Your task to perform on an android device: Clear the shopping cart on bestbuy.com. Search for usb-c to usb-b on bestbuy.com, select the first entry, and add it to the cart. Image 0: 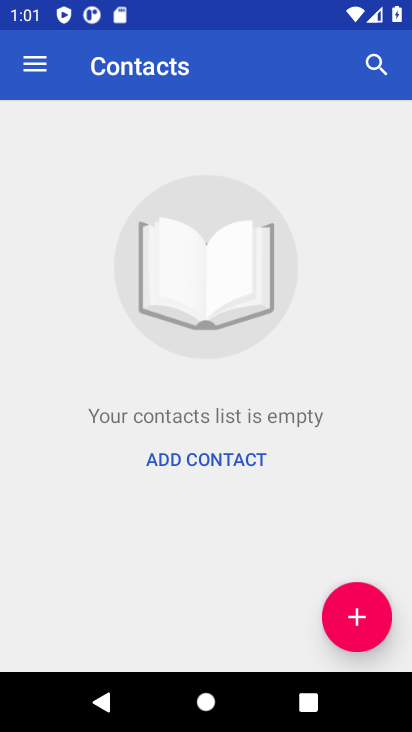
Step 0: press home button
Your task to perform on an android device: Clear the shopping cart on bestbuy.com. Search for usb-c to usb-b on bestbuy.com, select the first entry, and add it to the cart. Image 1: 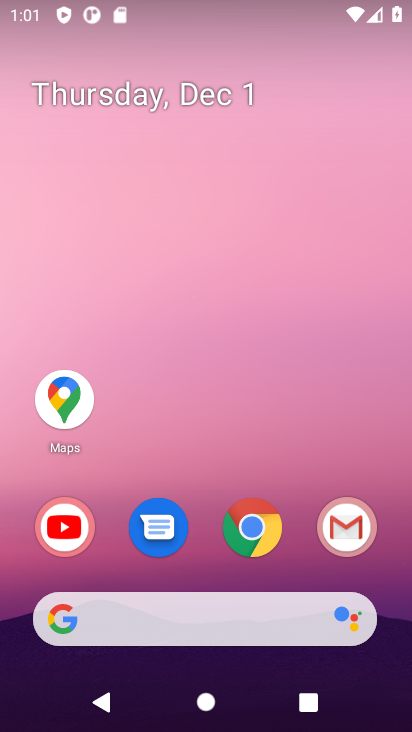
Step 1: click (260, 534)
Your task to perform on an android device: Clear the shopping cart on bestbuy.com. Search for usb-c to usb-b on bestbuy.com, select the first entry, and add it to the cart. Image 2: 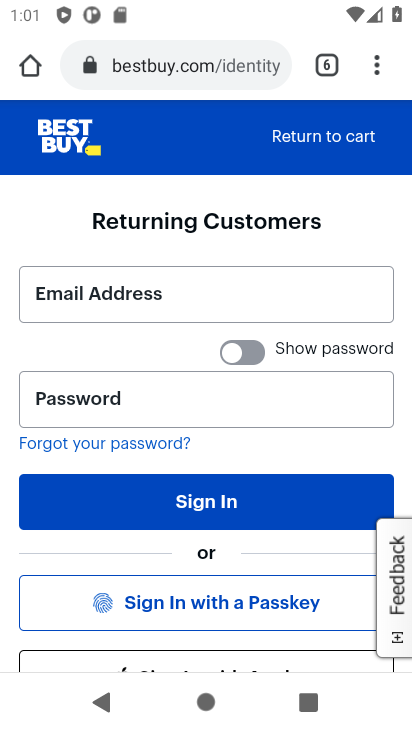
Step 2: click (334, 143)
Your task to perform on an android device: Clear the shopping cart on bestbuy.com. Search for usb-c to usb-b on bestbuy.com, select the first entry, and add it to the cart. Image 3: 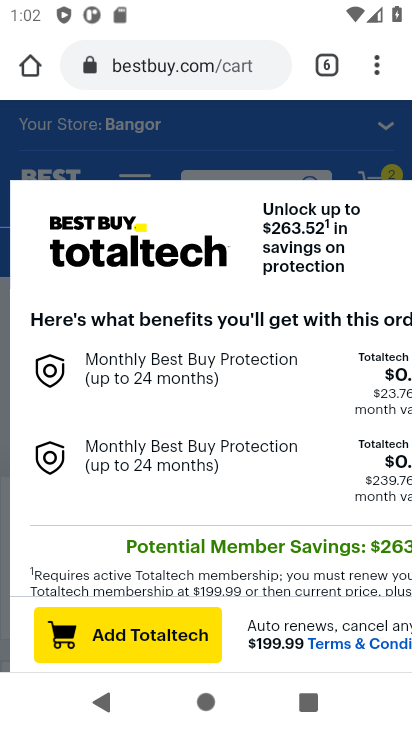
Step 3: click (325, 150)
Your task to perform on an android device: Clear the shopping cart on bestbuy.com. Search for usb-c to usb-b on bestbuy.com, select the first entry, and add it to the cart. Image 4: 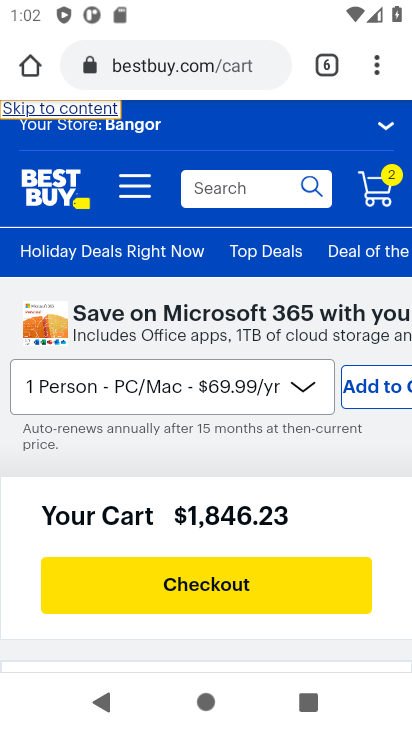
Step 4: drag from (152, 296) to (129, 116)
Your task to perform on an android device: Clear the shopping cart on bestbuy.com. Search for usb-c to usb-b on bestbuy.com, select the first entry, and add it to the cart. Image 5: 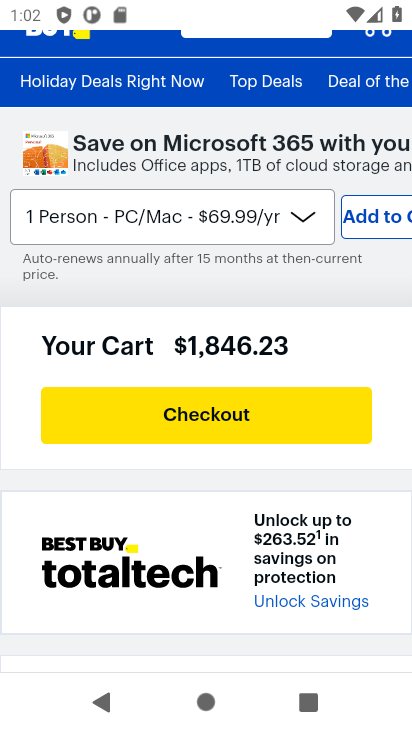
Step 5: drag from (406, 409) to (377, 200)
Your task to perform on an android device: Clear the shopping cart on bestbuy.com. Search for usb-c to usb-b on bestbuy.com, select the first entry, and add it to the cart. Image 6: 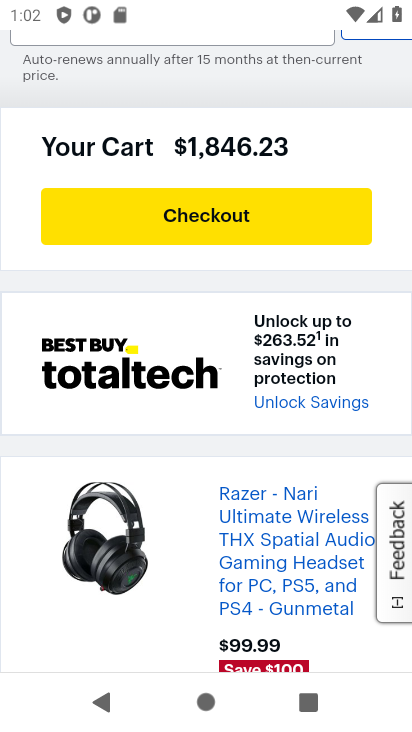
Step 6: drag from (362, 367) to (362, 321)
Your task to perform on an android device: Clear the shopping cart on bestbuy.com. Search for usb-c to usb-b on bestbuy.com, select the first entry, and add it to the cart. Image 7: 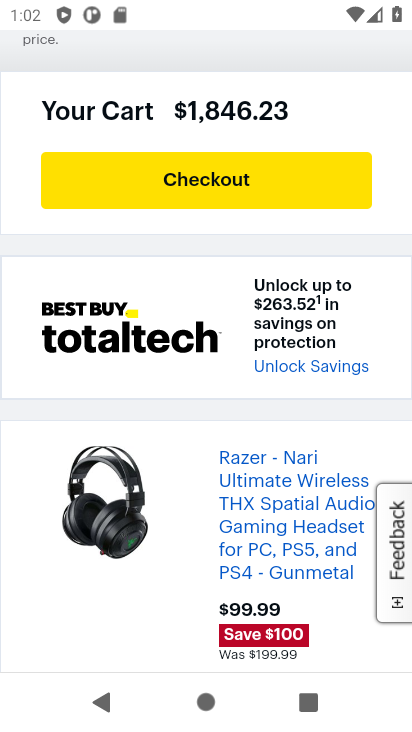
Step 7: drag from (348, 397) to (350, 208)
Your task to perform on an android device: Clear the shopping cart on bestbuy.com. Search for usb-c to usb-b on bestbuy.com, select the first entry, and add it to the cart. Image 8: 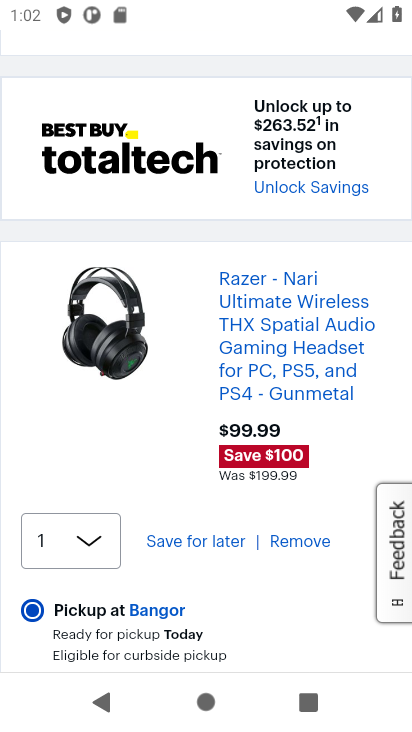
Step 8: click (297, 552)
Your task to perform on an android device: Clear the shopping cart on bestbuy.com. Search for usb-c to usb-b on bestbuy.com, select the first entry, and add it to the cart. Image 9: 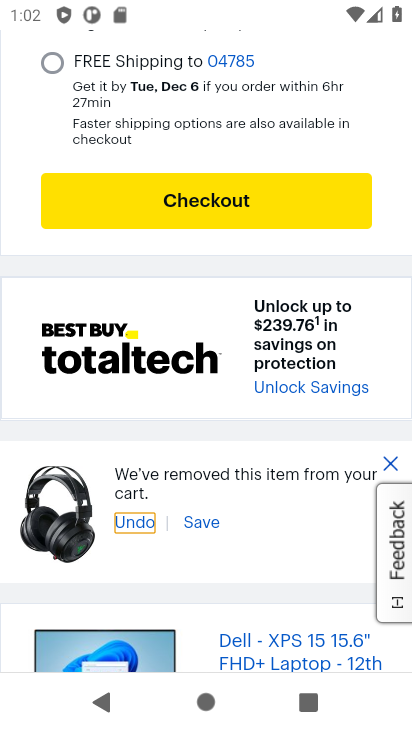
Step 9: drag from (277, 423) to (267, 269)
Your task to perform on an android device: Clear the shopping cart on bestbuy.com. Search for usb-c to usb-b on bestbuy.com, select the first entry, and add it to the cart. Image 10: 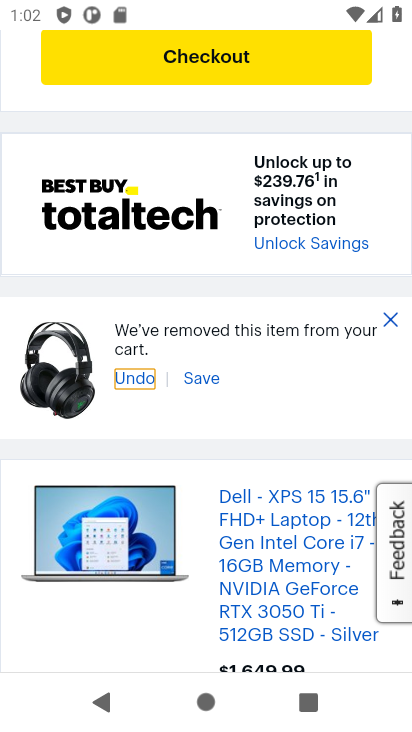
Step 10: drag from (348, 448) to (348, 110)
Your task to perform on an android device: Clear the shopping cart on bestbuy.com. Search for usb-c to usb-b on bestbuy.com, select the first entry, and add it to the cart. Image 11: 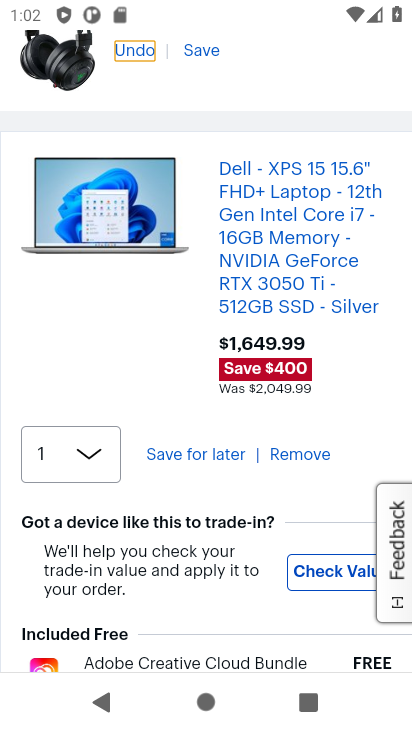
Step 11: click (307, 480)
Your task to perform on an android device: Clear the shopping cart on bestbuy.com. Search for usb-c to usb-b on bestbuy.com, select the first entry, and add it to the cart. Image 12: 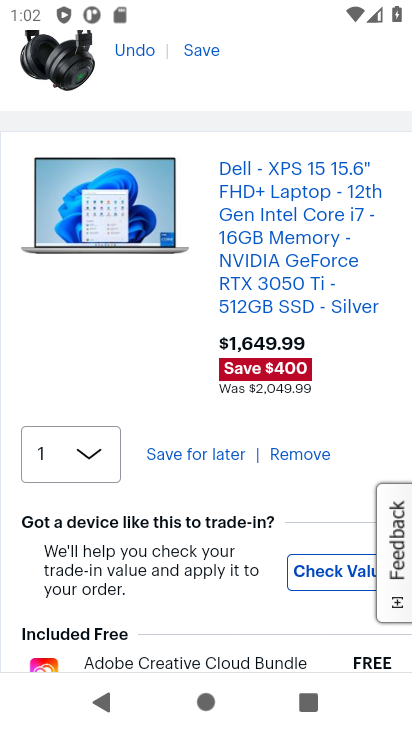
Step 12: click (302, 454)
Your task to perform on an android device: Clear the shopping cart on bestbuy.com. Search for usb-c to usb-b on bestbuy.com, select the first entry, and add it to the cart. Image 13: 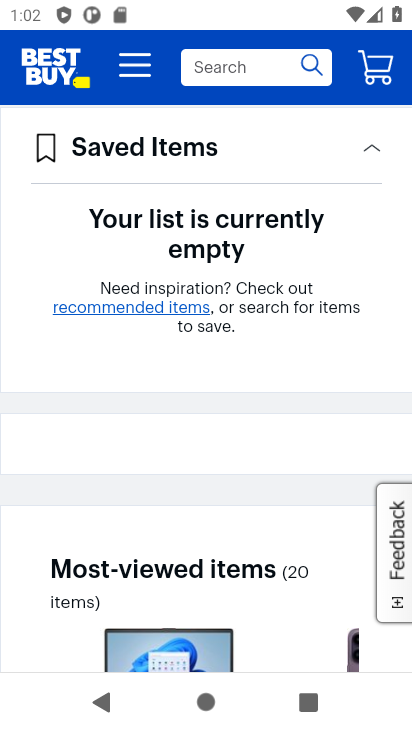
Step 13: click (204, 70)
Your task to perform on an android device: Clear the shopping cart on bestbuy.com. Search for usb-c to usb-b on bestbuy.com, select the first entry, and add it to the cart. Image 14: 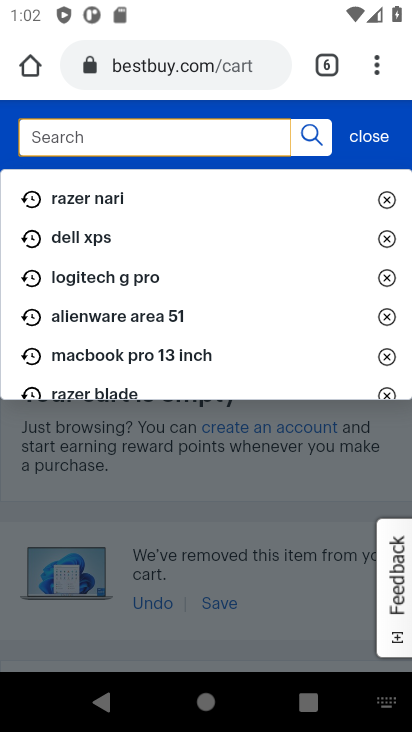
Step 14: type "usb-c to usb-b"
Your task to perform on an android device: Clear the shopping cart on bestbuy.com. Search for usb-c to usb-b on bestbuy.com, select the first entry, and add it to the cart. Image 15: 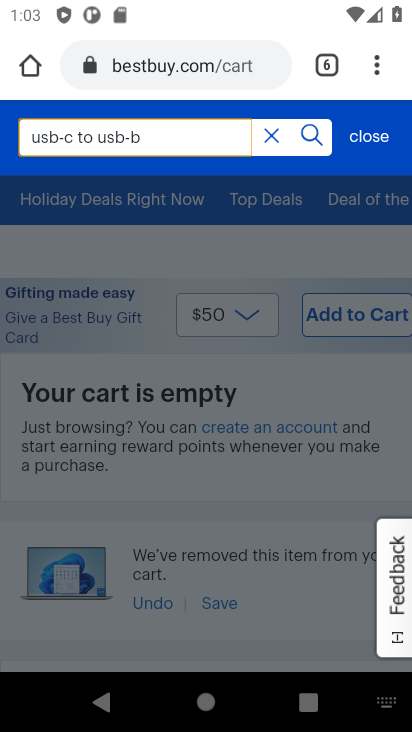
Step 15: click (318, 128)
Your task to perform on an android device: Clear the shopping cart on bestbuy.com. Search for usb-c to usb-b on bestbuy.com, select the first entry, and add it to the cart. Image 16: 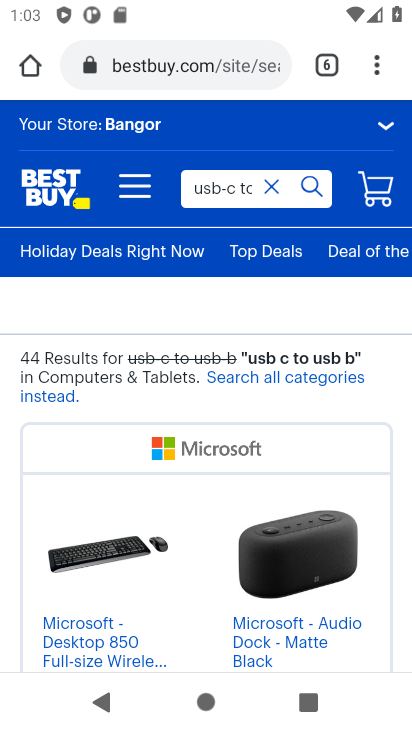
Step 16: task complete